Your task to perform on an android device: When is my next appointment? Image 0: 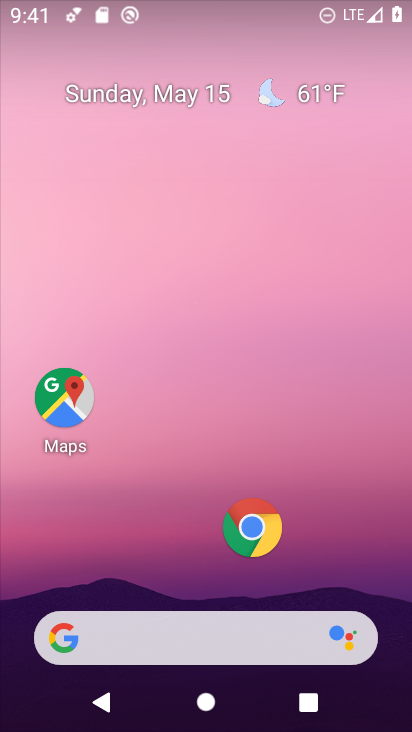
Step 0: drag from (203, 580) to (189, 90)
Your task to perform on an android device: When is my next appointment? Image 1: 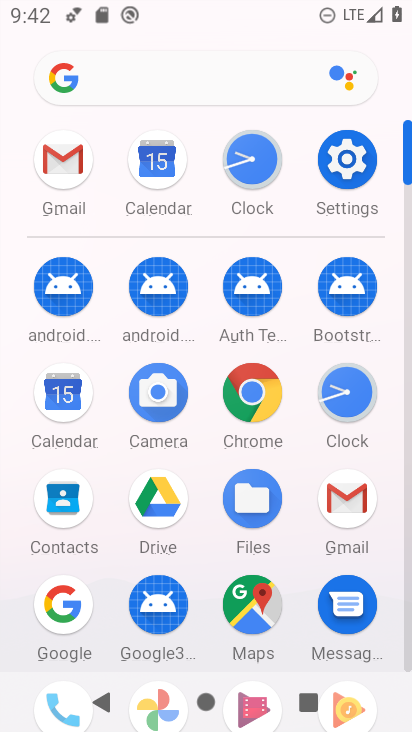
Step 1: click (59, 395)
Your task to perform on an android device: When is my next appointment? Image 2: 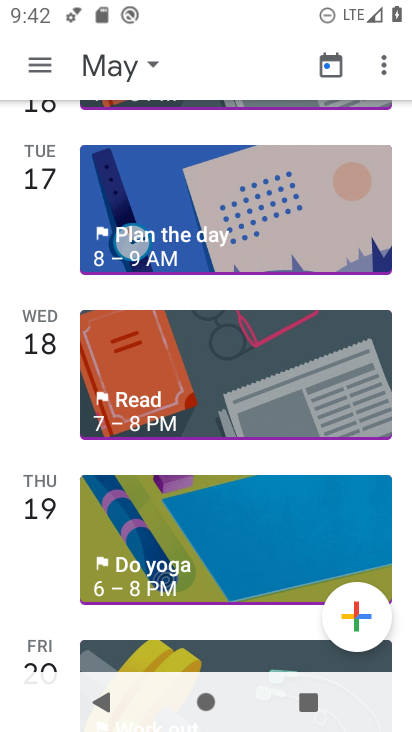
Step 2: task complete